Your task to perform on an android device: open chrome and create a bookmark for the current page Image 0: 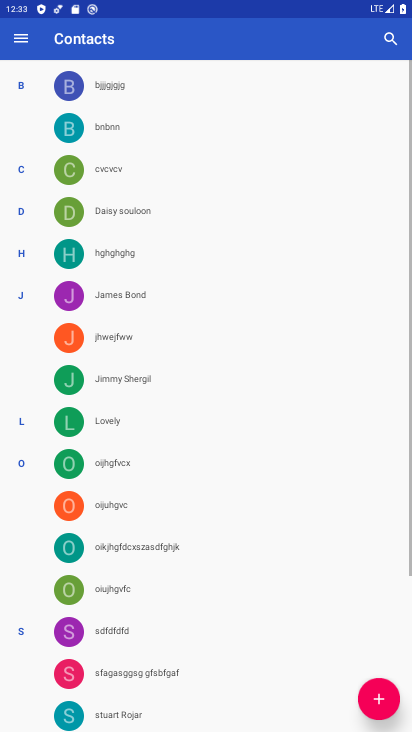
Step 0: drag from (339, 605) to (348, 499)
Your task to perform on an android device: open chrome and create a bookmark for the current page Image 1: 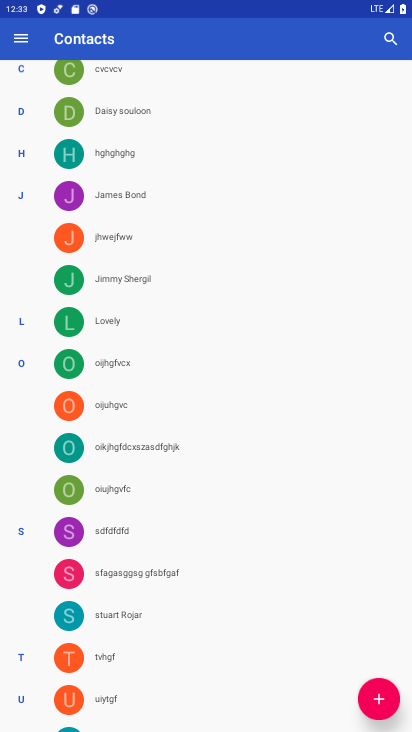
Step 1: press home button
Your task to perform on an android device: open chrome and create a bookmark for the current page Image 2: 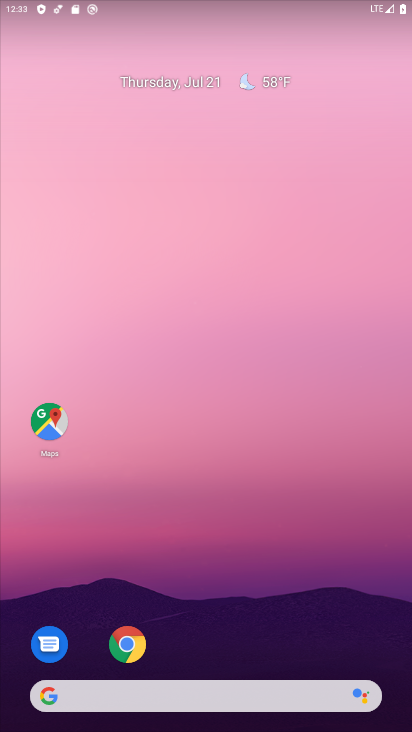
Step 2: drag from (333, 596) to (341, 69)
Your task to perform on an android device: open chrome and create a bookmark for the current page Image 3: 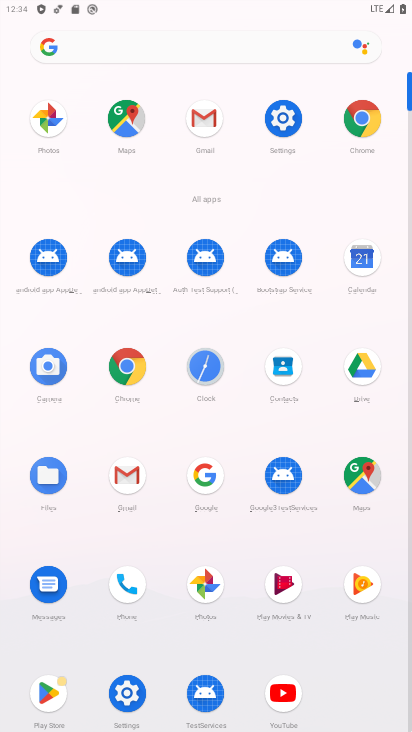
Step 3: click (134, 371)
Your task to perform on an android device: open chrome and create a bookmark for the current page Image 4: 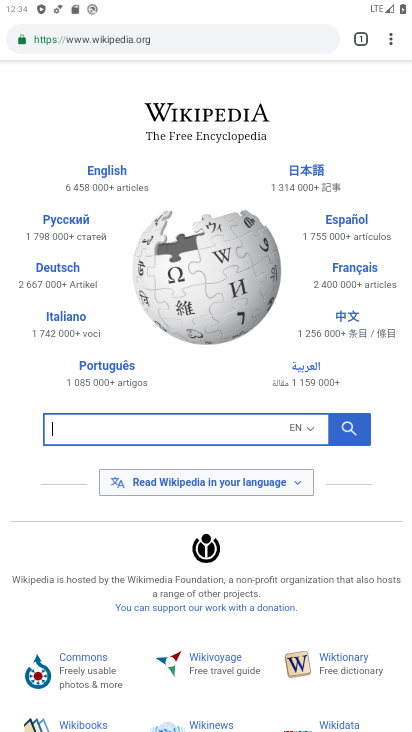
Step 4: click (387, 40)
Your task to perform on an android device: open chrome and create a bookmark for the current page Image 5: 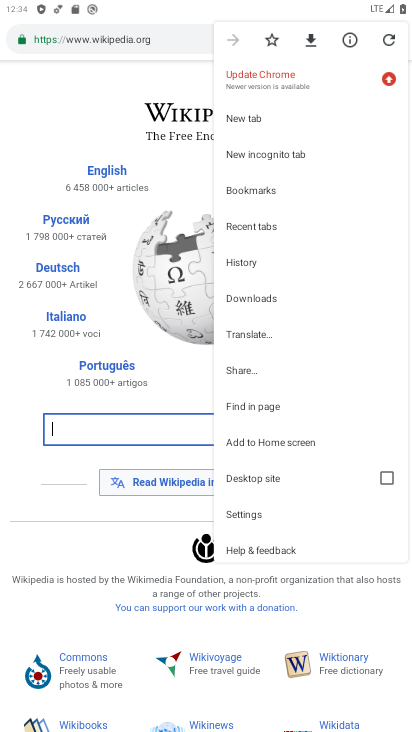
Step 5: click (273, 42)
Your task to perform on an android device: open chrome and create a bookmark for the current page Image 6: 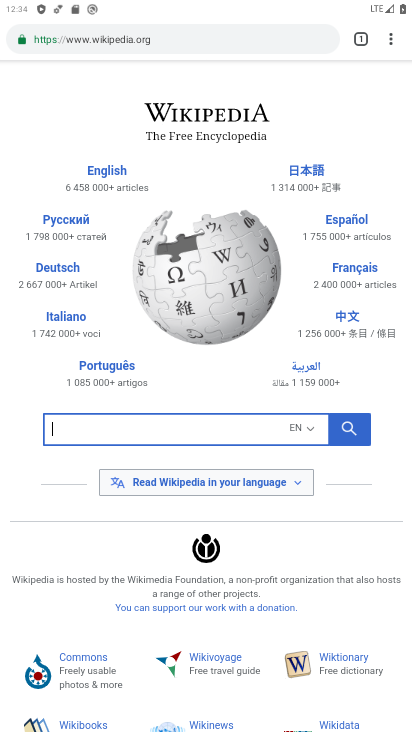
Step 6: task complete